Your task to perform on an android device: Open Amazon Image 0: 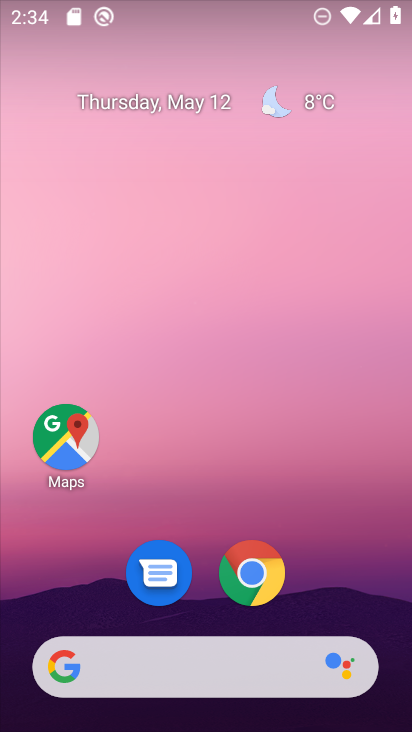
Step 0: drag from (382, 552) to (127, 82)
Your task to perform on an android device: Open Amazon Image 1: 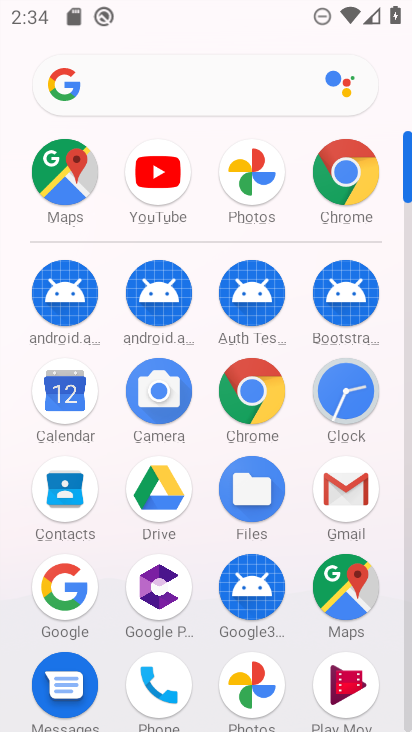
Step 1: drag from (231, 430) to (202, 171)
Your task to perform on an android device: Open Amazon Image 2: 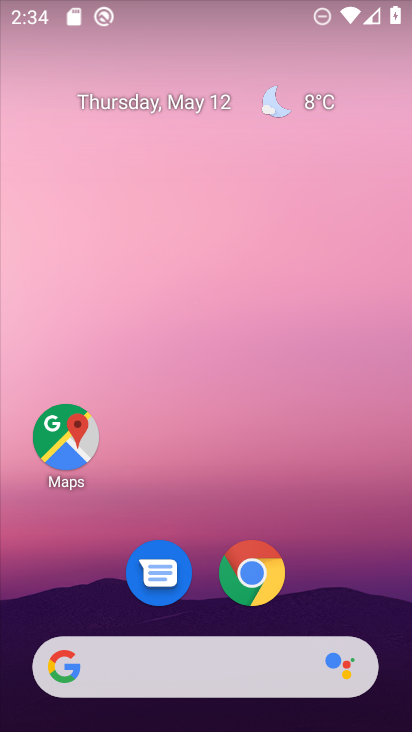
Step 2: drag from (359, 625) to (166, 36)
Your task to perform on an android device: Open Amazon Image 3: 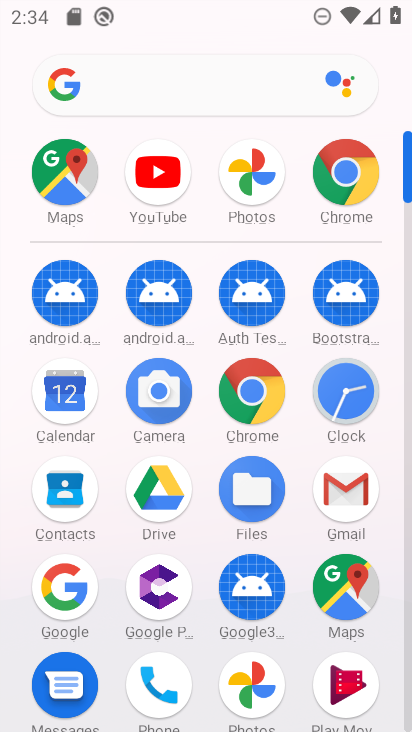
Step 3: click (347, 167)
Your task to perform on an android device: Open Amazon Image 4: 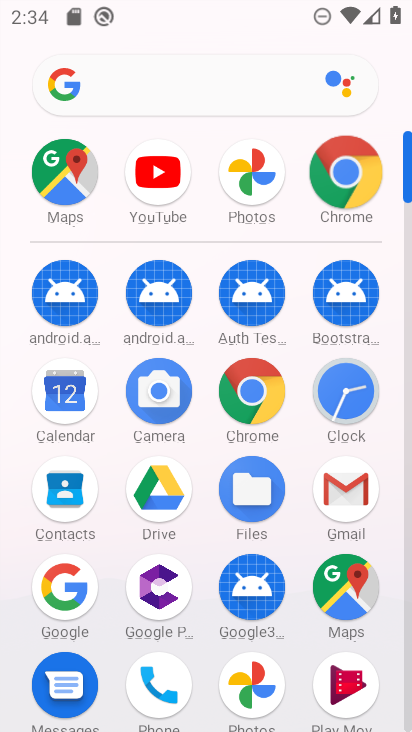
Step 4: click (352, 166)
Your task to perform on an android device: Open Amazon Image 5: 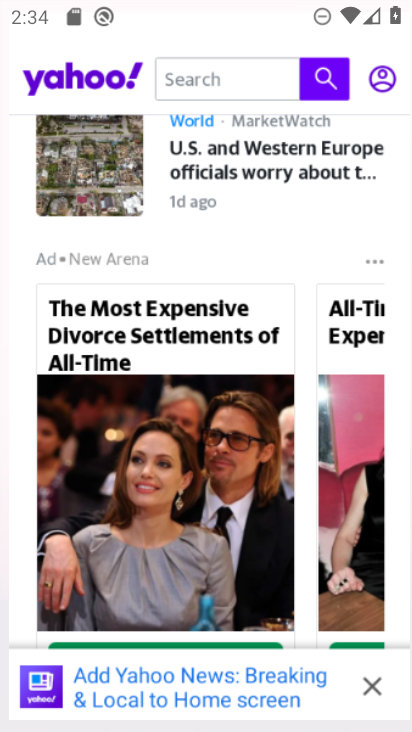
Step 5: click (353, 173)
Your task to perform on an android device: Open Amazon Image 6: 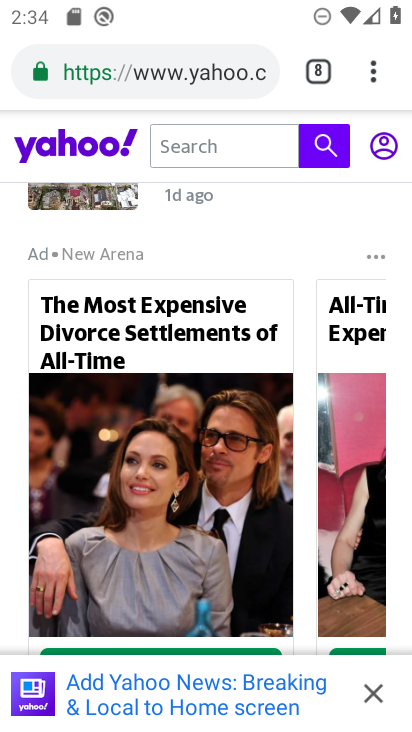
Step 6: drag from (371, 67) to (111, 269)
Your task to perform on an android device: Open Amazon Image 7: 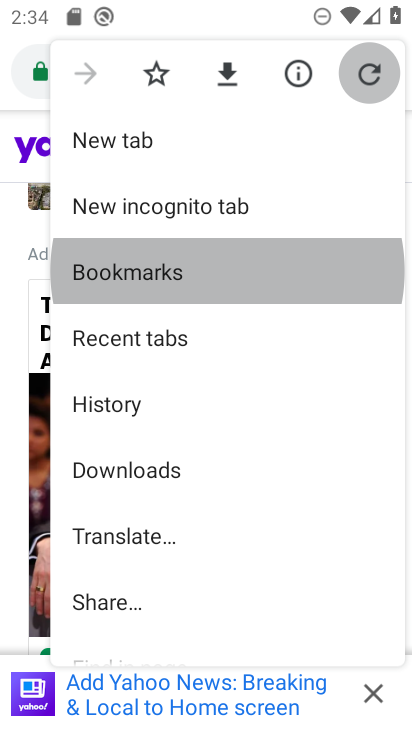
Step 7: drag from (368, 80) to (111, 269)
Your task to perform on an android device: Open Amazon Image 8: 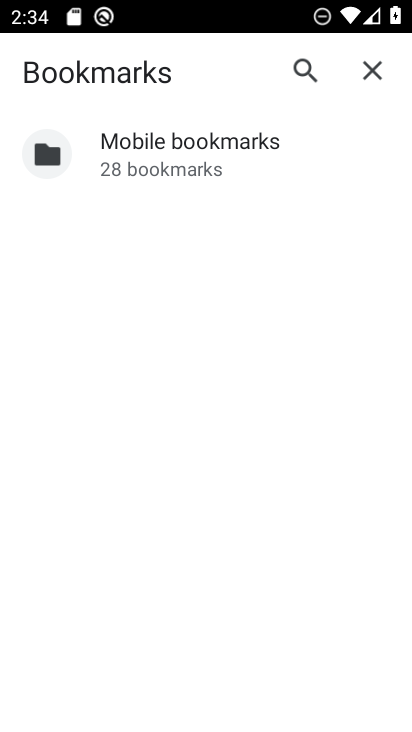
Step 8: click (372, 71)
Your task to perform on an android device: Open Amazon Image 9: 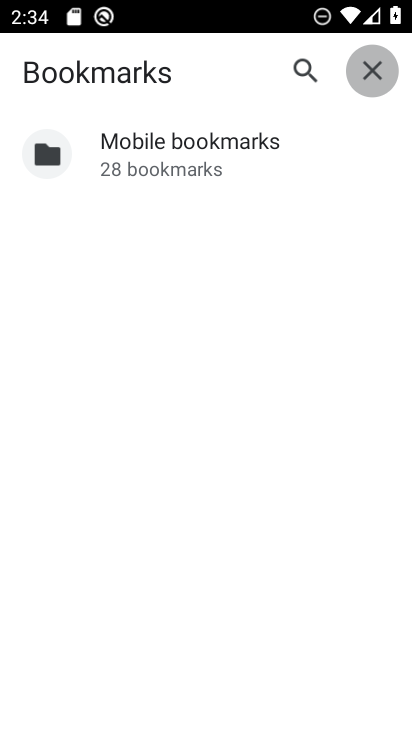
Step 9: click (372, 71)
Your task to perform on an android device: Open Amazon Image 10: 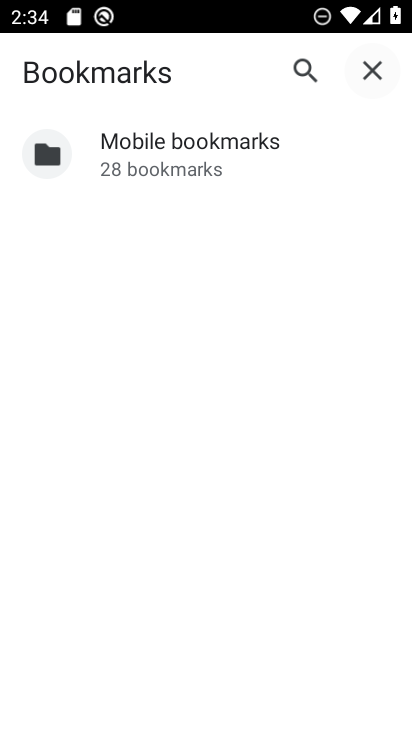
Step 10: click (373, 70)
Your task to perform on an android device: Open Amazon Image 11: 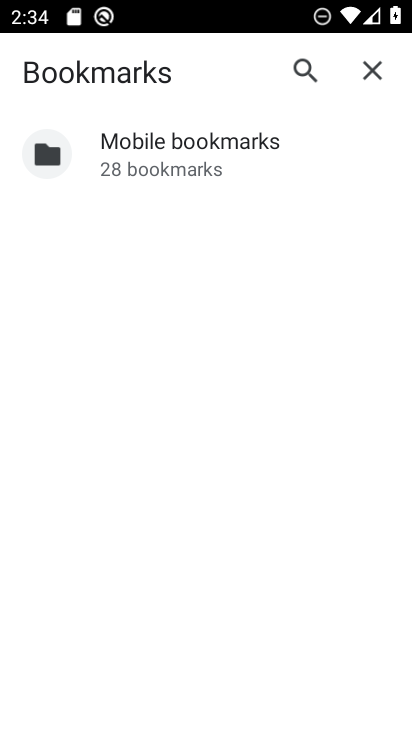
Step 11: click (373, 70)
Your task to perform on an android device: Open Amazon Image 12: 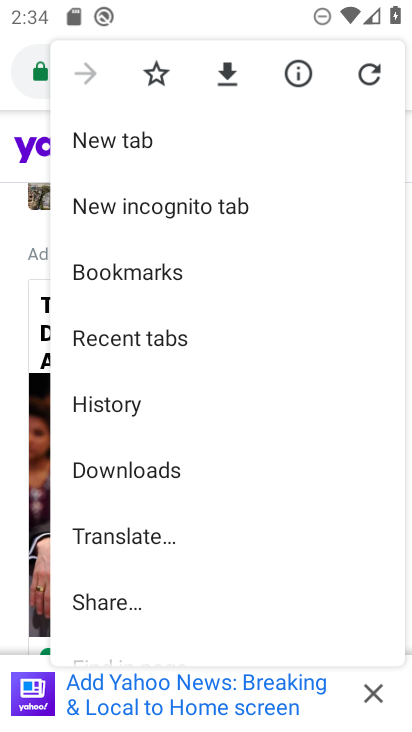
Step 12: click (113, 130)
Your task to perform on an android device: Open Amazon Image 13: 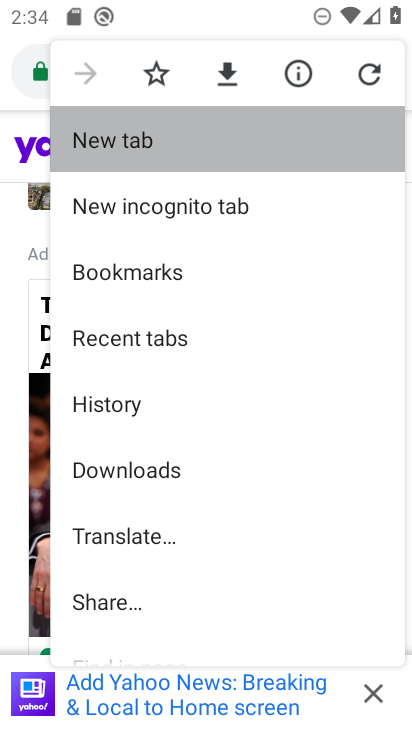
Step 13: click (107, 131)
Your task to perform on an android device: Open Amazon Image 14: 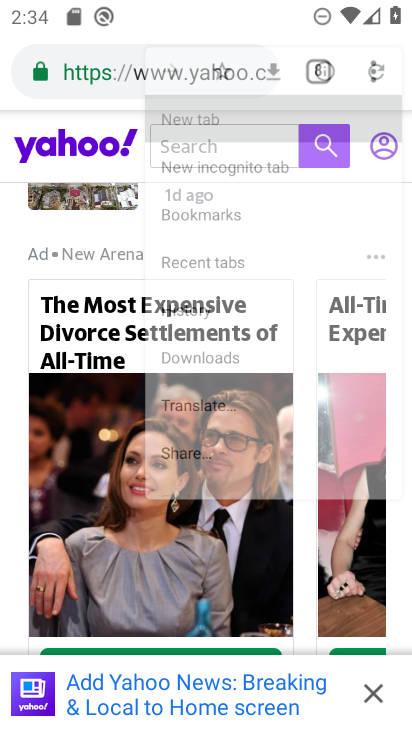
Step 14: click (106, 131)
Your task to perform on an android device: Open Amazon Image 15: 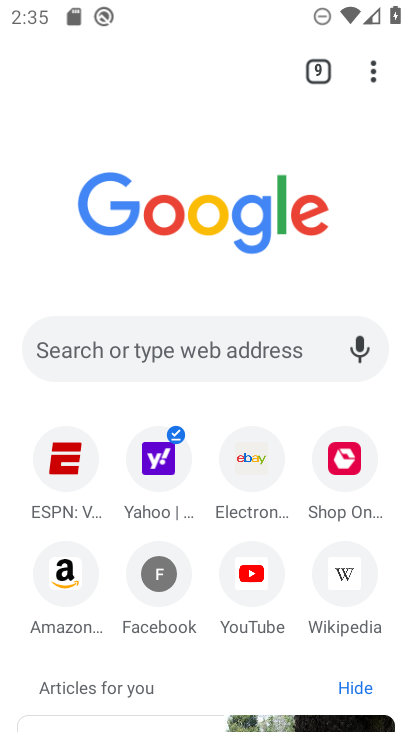
Step 15: click (64, 571)
Your task to perform on an android device: Open Amazon Image 16: 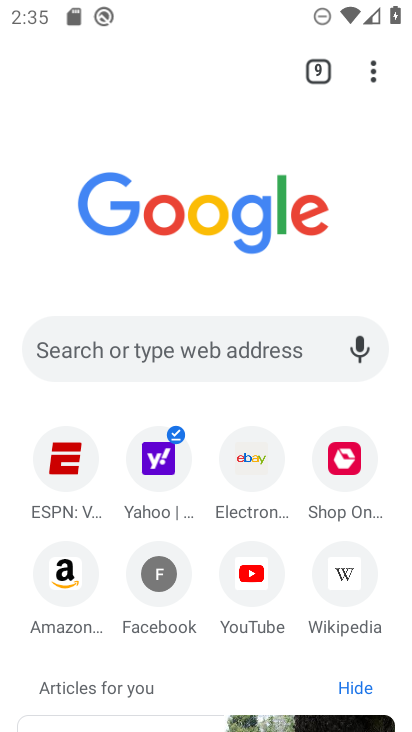
Step 16: click (64, 571)
Your task to perform on an android device: Open Amazon Image 17: 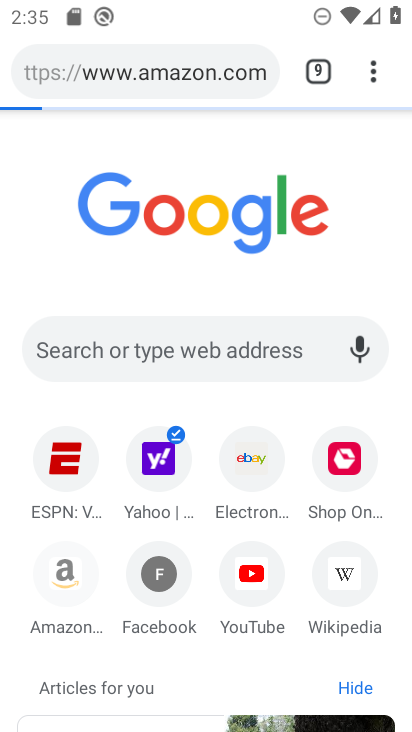
Step 17: click (60, 576)
Your task to perform on an android device: Open Amazon Image 18: 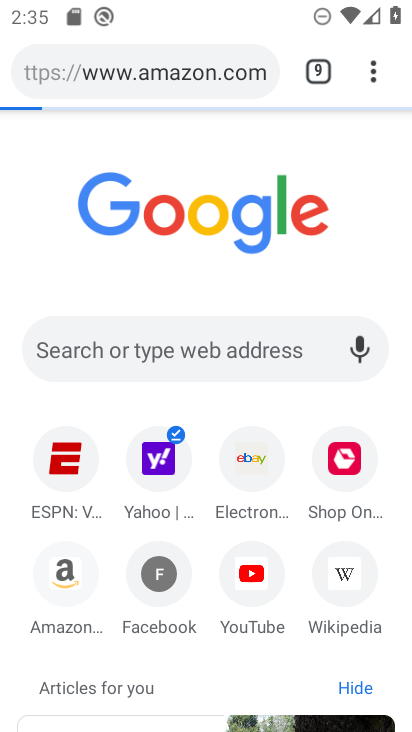
Step 18: click (59, 577)
Your task to perform on an android device: Open Amazon Image 19: 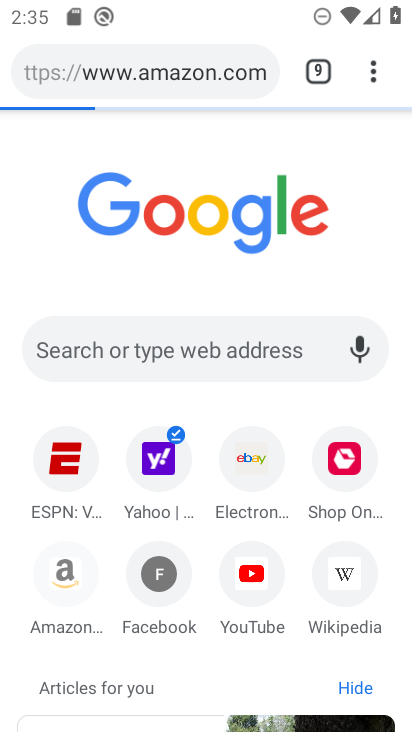
Step 19: click (60, 577)
Your task to perform on an android device: Open Amazon Image 20: 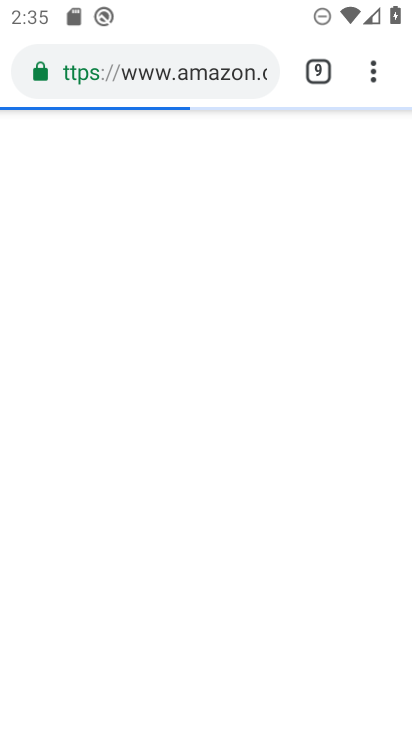
Step 20: click (61, 577)
Your task to perform on an android device: Open Amazon Image 21: 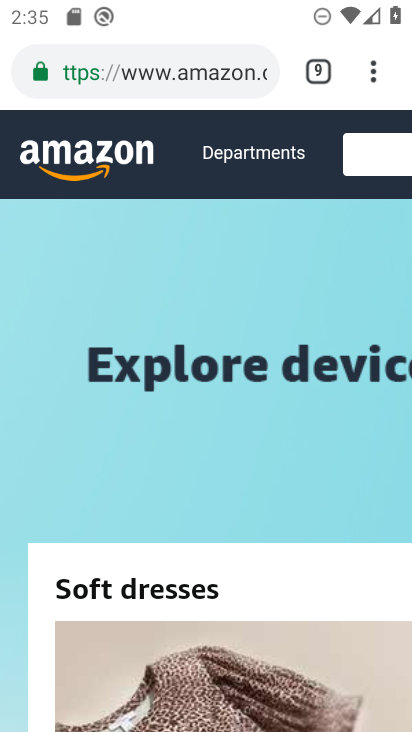
Step 21: drag from (273, 508) to (194, 57)
Your task to perform on an android device: Open Amazon Image 22: 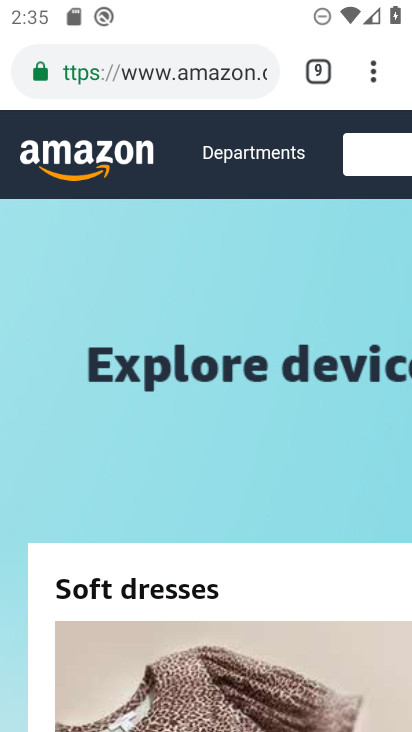
Step 22: drag from (290, 501) to (212, 138)
Your task to perform on an android device: Open Amazon Image 23: 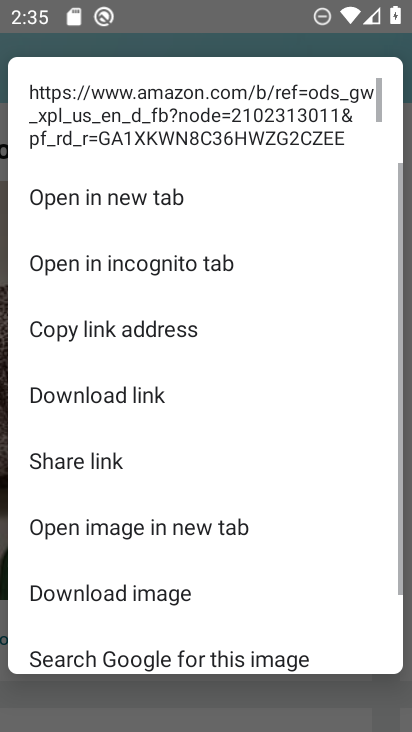
Step 23: drag from (229, 478) to (175, 153)
Your task to perform on an android device: Open Amazon Image 24: 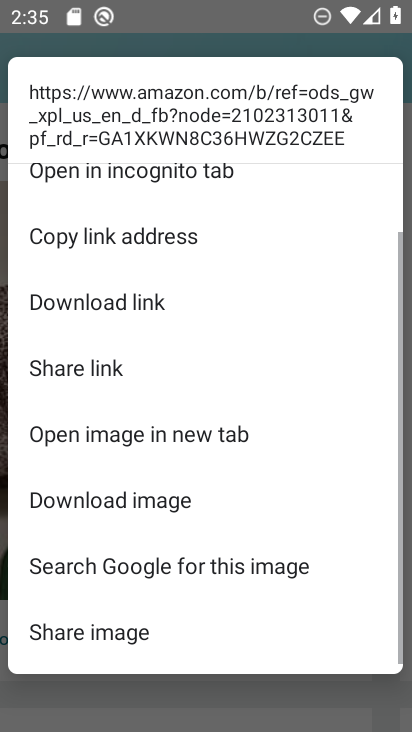
Step 24: click (337, 697)
Your task to perform on an android device: Open Amazon Image 25: 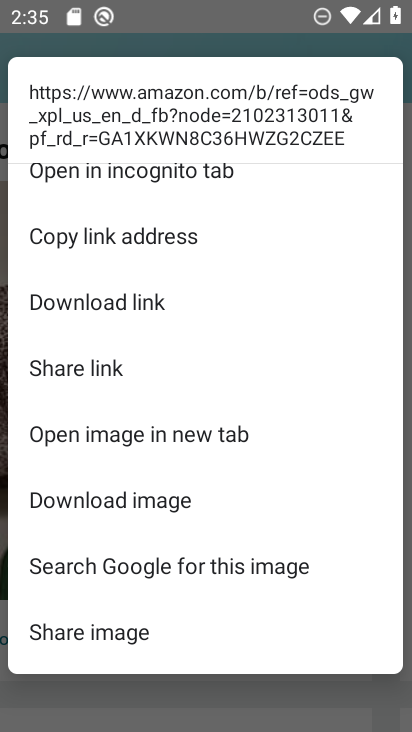
Step 25: click (342, 695)
Your task to perform on an android device: Open Amazon Image 26: 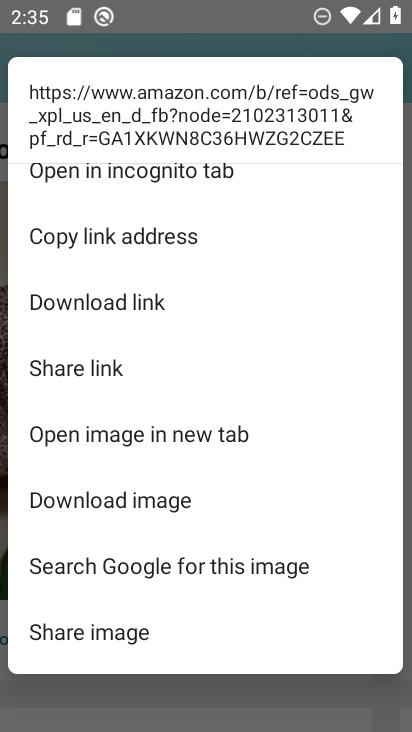
Step 26: click (184, 29)
Your task to perform on an android device: Open Amazon Image 27: 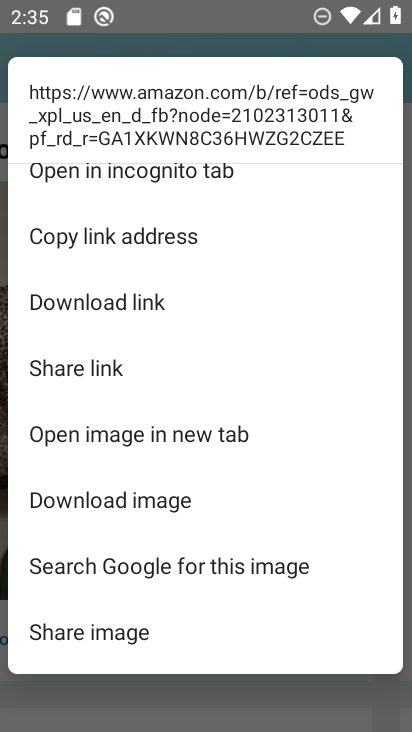
Step 27: click (187, 29)
Your task to perform on an android device: Open Amazon Image 28: 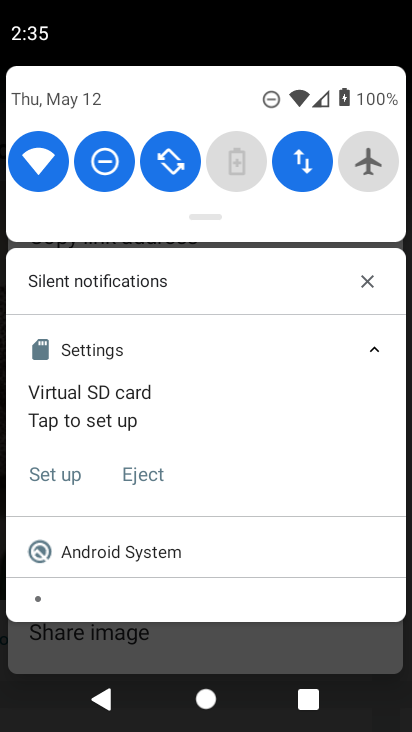
Step 28: click (346, 663)
Your task to perform on an android device: Open Amazon Image 29: 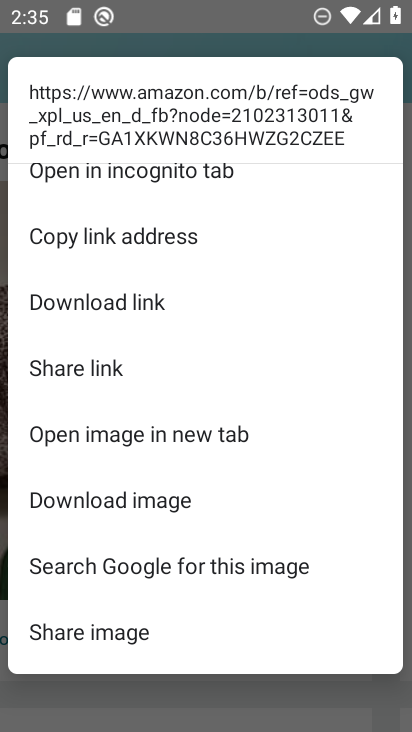
Step 29: click (355, 691)
Your task to perform on an android device: Open Amazon Image 30: 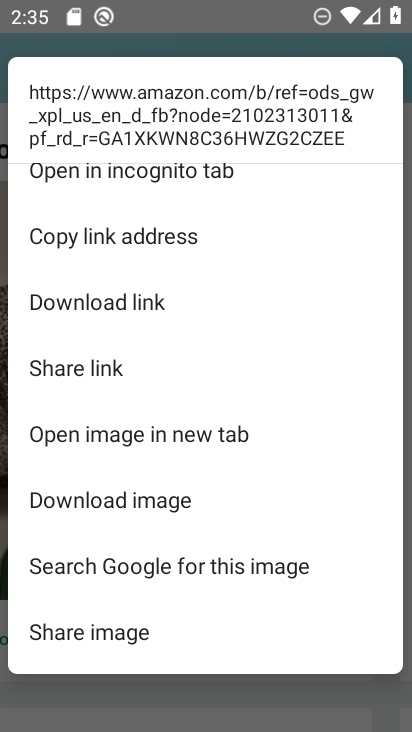
Step 30: click (361, 688)
Your task to perform on an android device: Open Amazon Image 31: 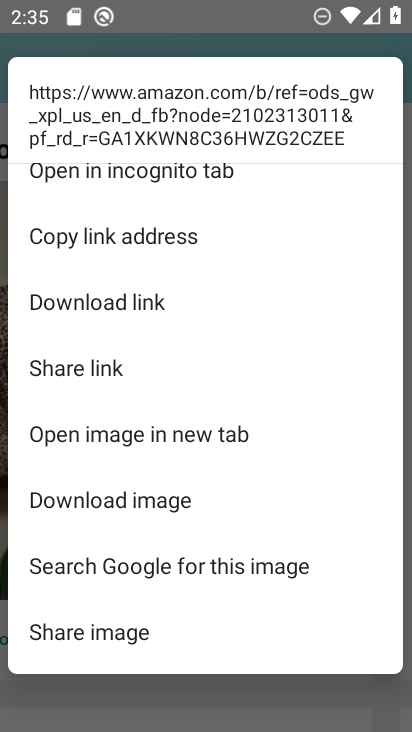
Step 31: click (362, 698)
Your task to perform on an android device: Open Amazon Image 32: 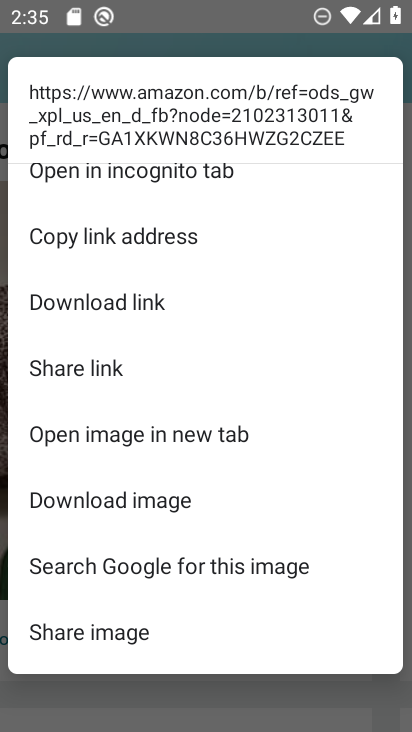
Step 32: click (179, 25)
Your task to perform on an android device: Open Amazon Image 33: 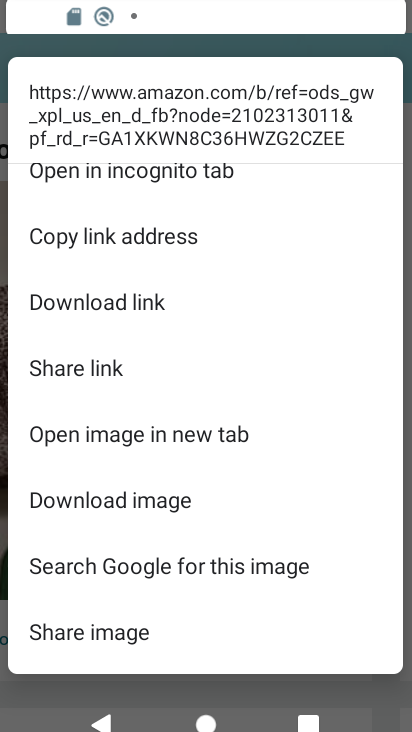
Step 33: click (183, 23)
Your task to perform on an android device: Open Amazon Image 34: 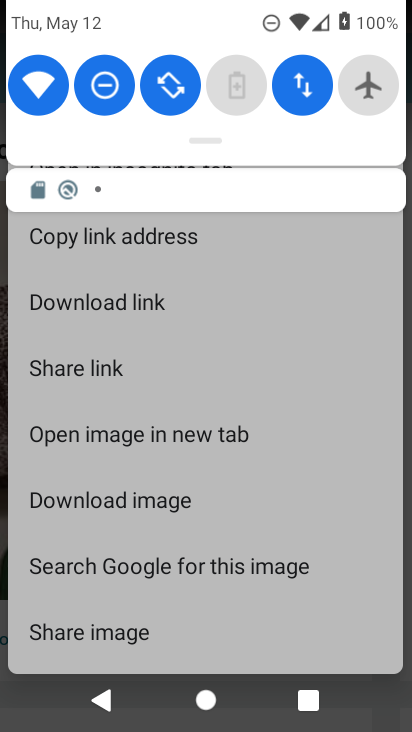
Step 34: click (185, 24)
Your task to perform on an android device: Open Amazon Image 35: 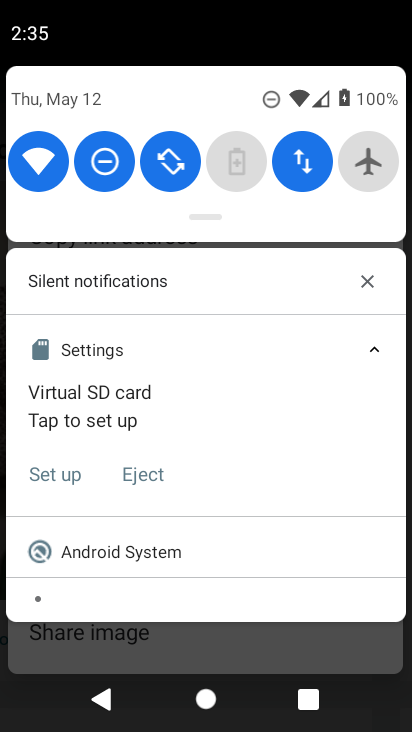
Step 35: click (364, 283)
Your task to perform on an android device: Open Amazon Image 36: 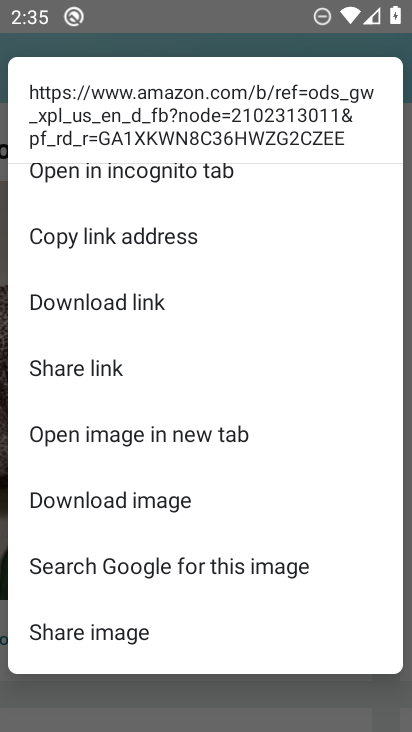
Step 36: click (116, 230)
Your task to perform on an android device: Open Amazon Image 37: 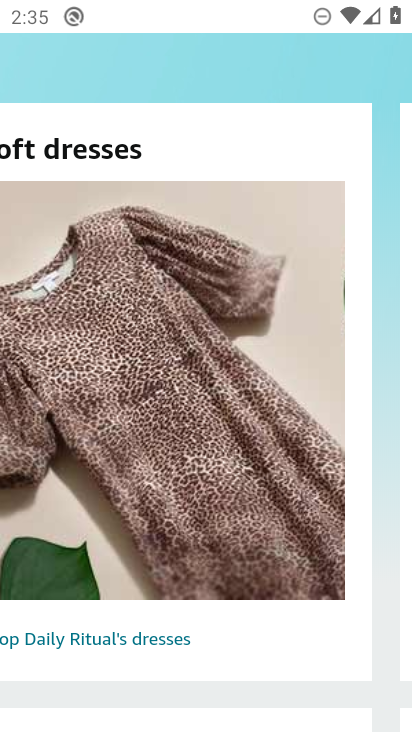
Step 37: task complete